Your task to perform on an android device: check the backup settings in the google photos Image 0: 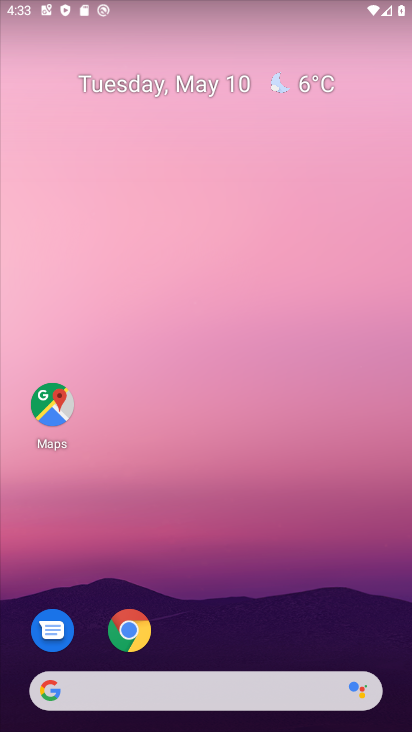
Step 0: click (234, 214)
Your task to perform on an android device: check the backup settings in the google photos Image 1: 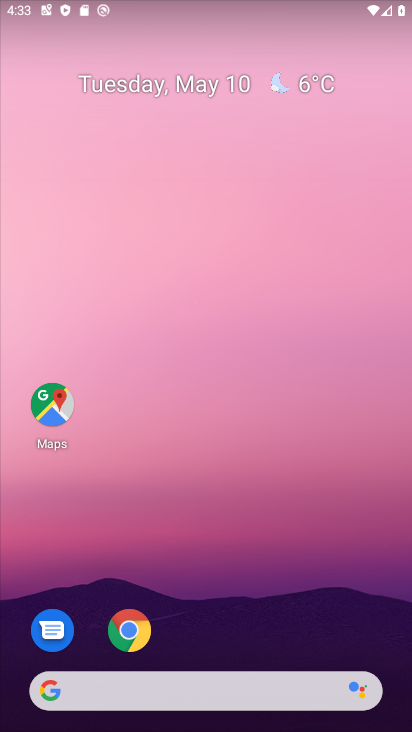
Step 1: drag from (353, 553) to (338, 118)
Your task to perform on an android device: check the backup settings in the google photos Image 2: 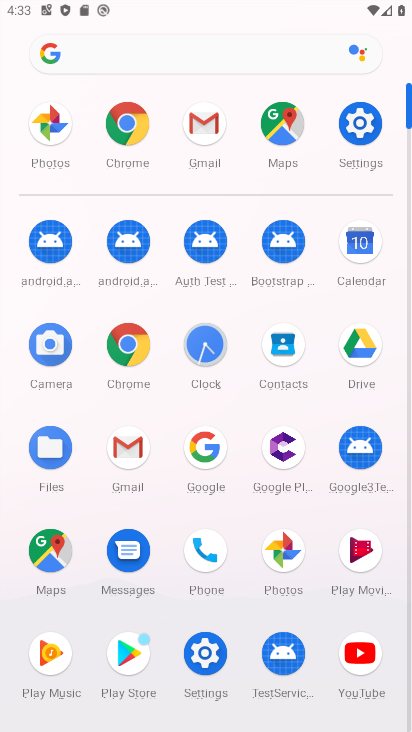
Step 2: click (281, 549)
Your task to perform on an android device: check the backup settings in the google photos Image 3: 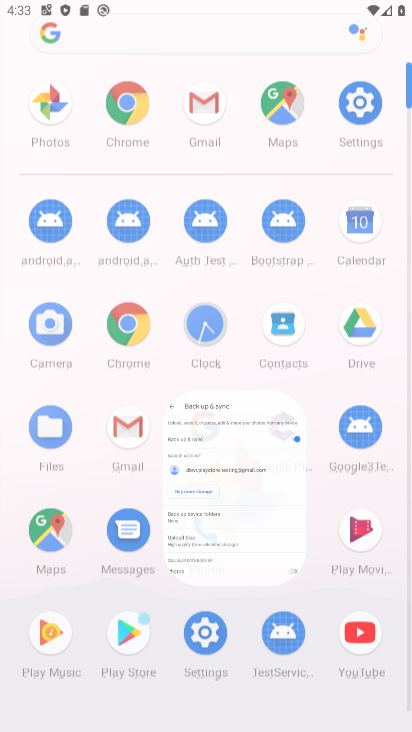
Step 3: click (283, 551)
Your task to perform on an android device: check the backup settings in the google photos Image 4: 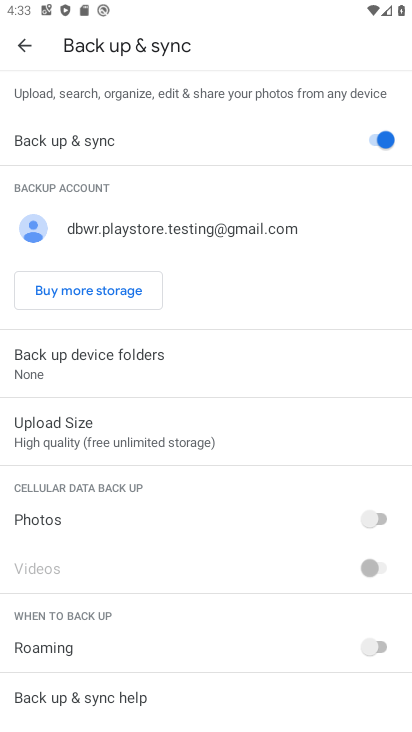
Step 4: click (20, 47)
Your task to perform on an android device: check the backup settings in the google photos Image 5: 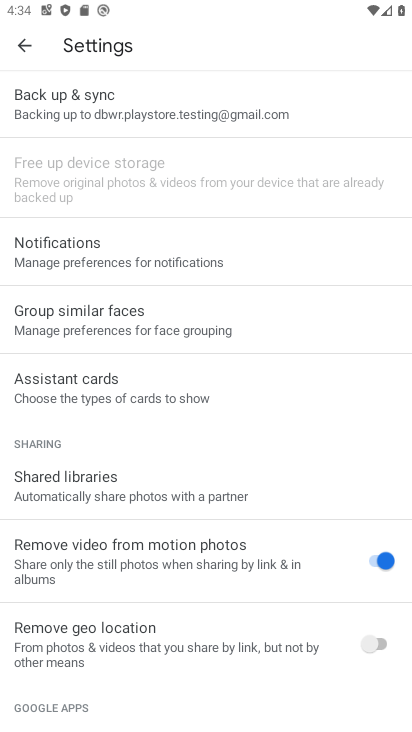
Step 5: click (77, 129)
Your task to perform on an android device: check the backup settings in the google photos Image 6: 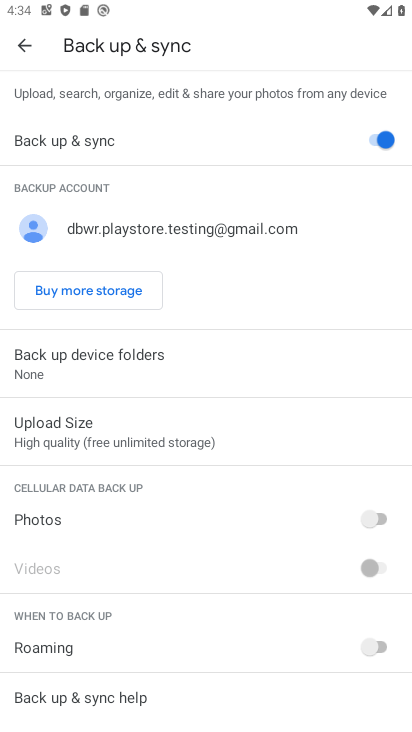
Step 6: task complete